Your task to perform on an android device: Show me recent news Image 0: 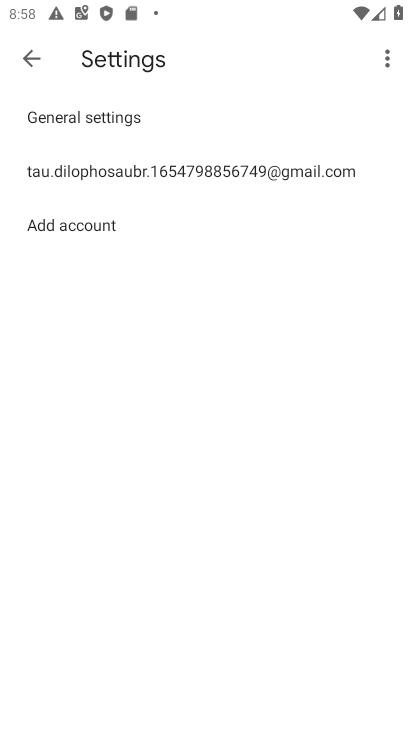
Step 0: press home button
Your task to perform on an android device: Show me recent news Image 1: 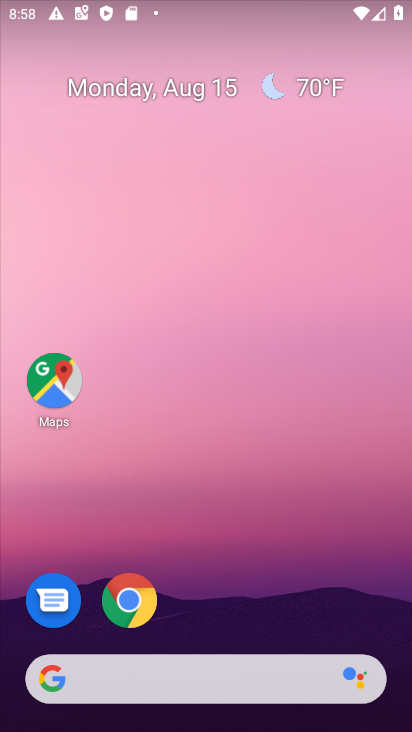
Step 1: task complete